Your task to perform on an android device: allow cookies in the chrome app Image 0: 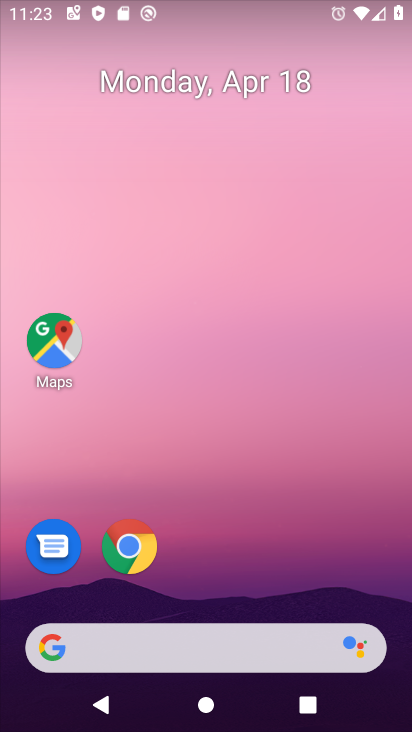
Step 0: click (131, 549)
Your task to perform on an android device: allow cookies in the chrome app Image 1: 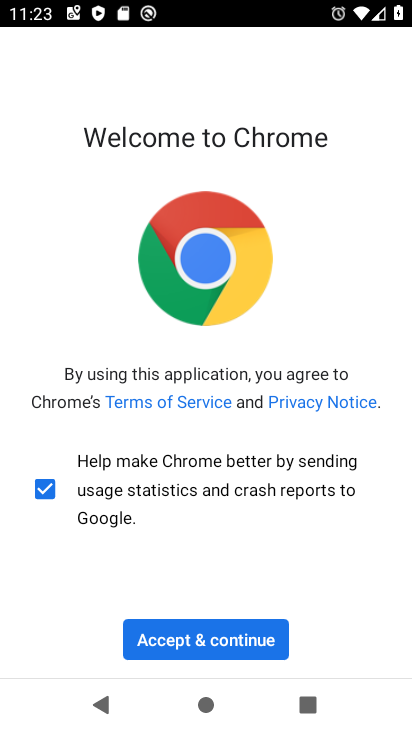
Step 1: click (207, 631)
Your task to perform on an android device: allow cookies in the chrome app Image 2: 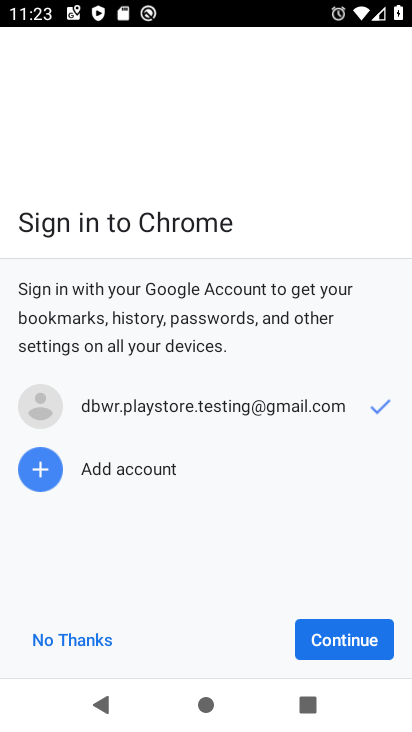
Step 2: click (355, 644)
Your task to perform on an android device: allow cookies in the chrome app Image 3: 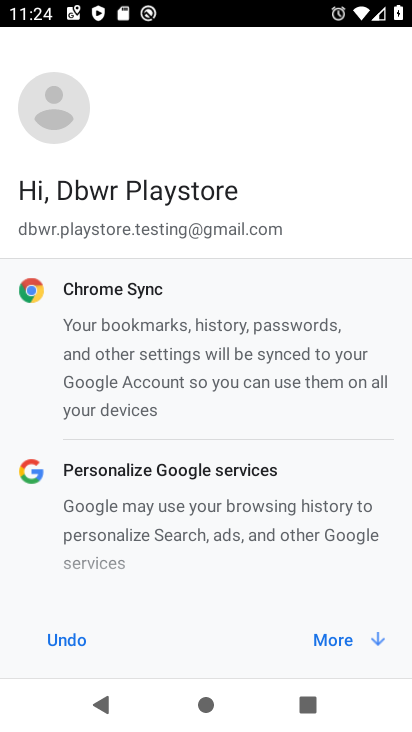
Step 3: click (355, 644)
Your task to perform on an android device: allow cookies in the chrome app Image 4: 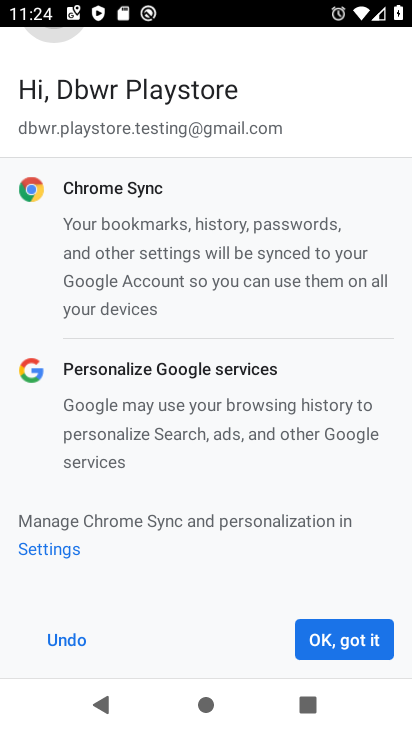
Step 4: click (355, 644)
Your task to perform on an android device: allow cookies in the chrome app Image 5: 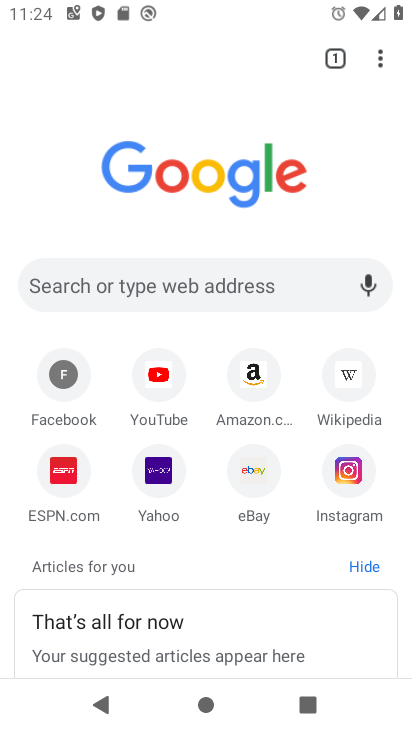
Step 5: click (376, 55)
Your task to perform on an android device: allow cookies in the chrome app Image 6: 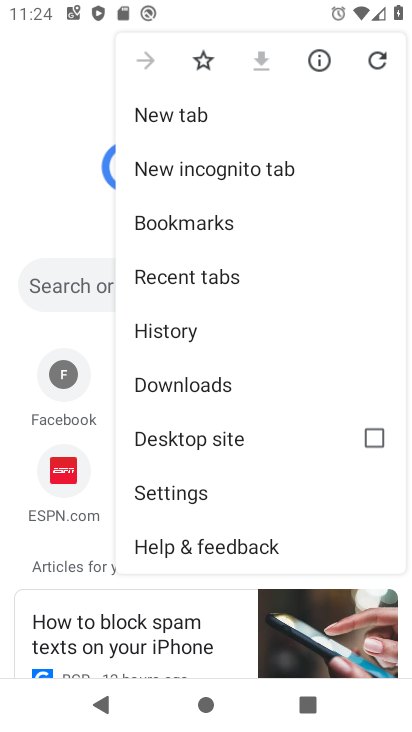
Step 6: click (191, 495)
Your task to perform on an android device: allow cookies in the chrome app Image 7: 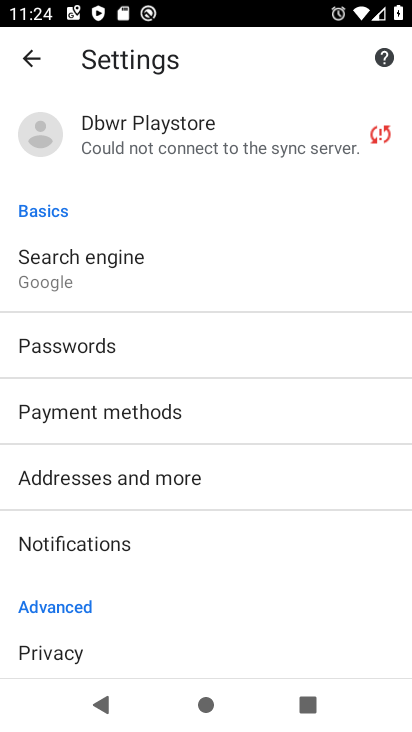
Step 7: drag from (138, 520) to (169, 162)
Your task to perform on an android device: allow cookies in the chrome app Image 8: 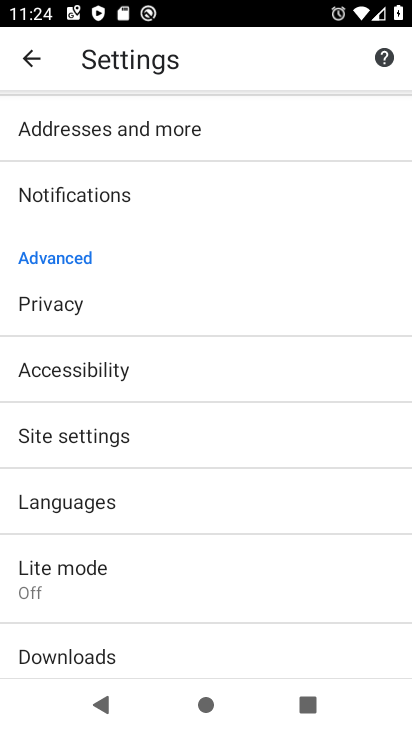
Step 8: click (97, 445)
Your task to perform on an android device: allow cookies in the chrome app Image 9: 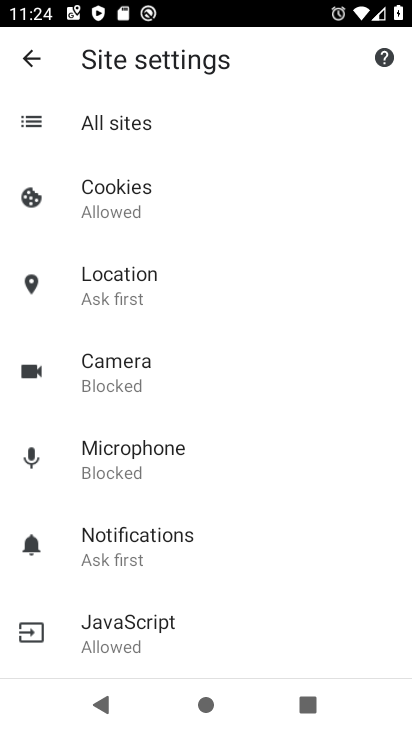
Step 9: click (153, 196)
Your task to perform on an android device: allow cookies in the chrome app Image 10: 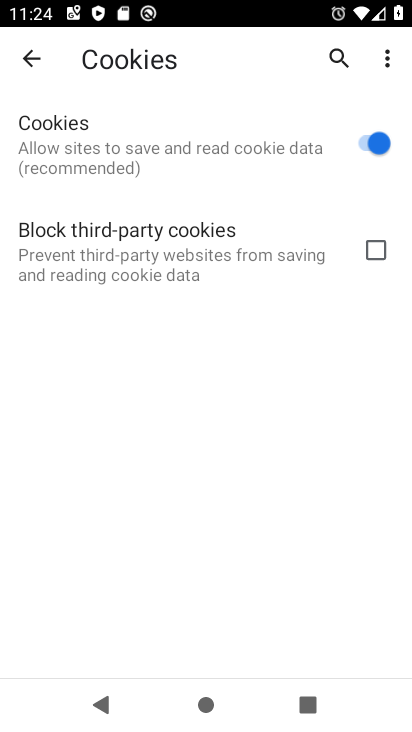
Step 10: task complete